Your task to perform on an android device: Clear all items from cart on ebay. Search for "logitech g pro" on ebay, select the first entry, add it to the cart, then select checkout. Image 0: 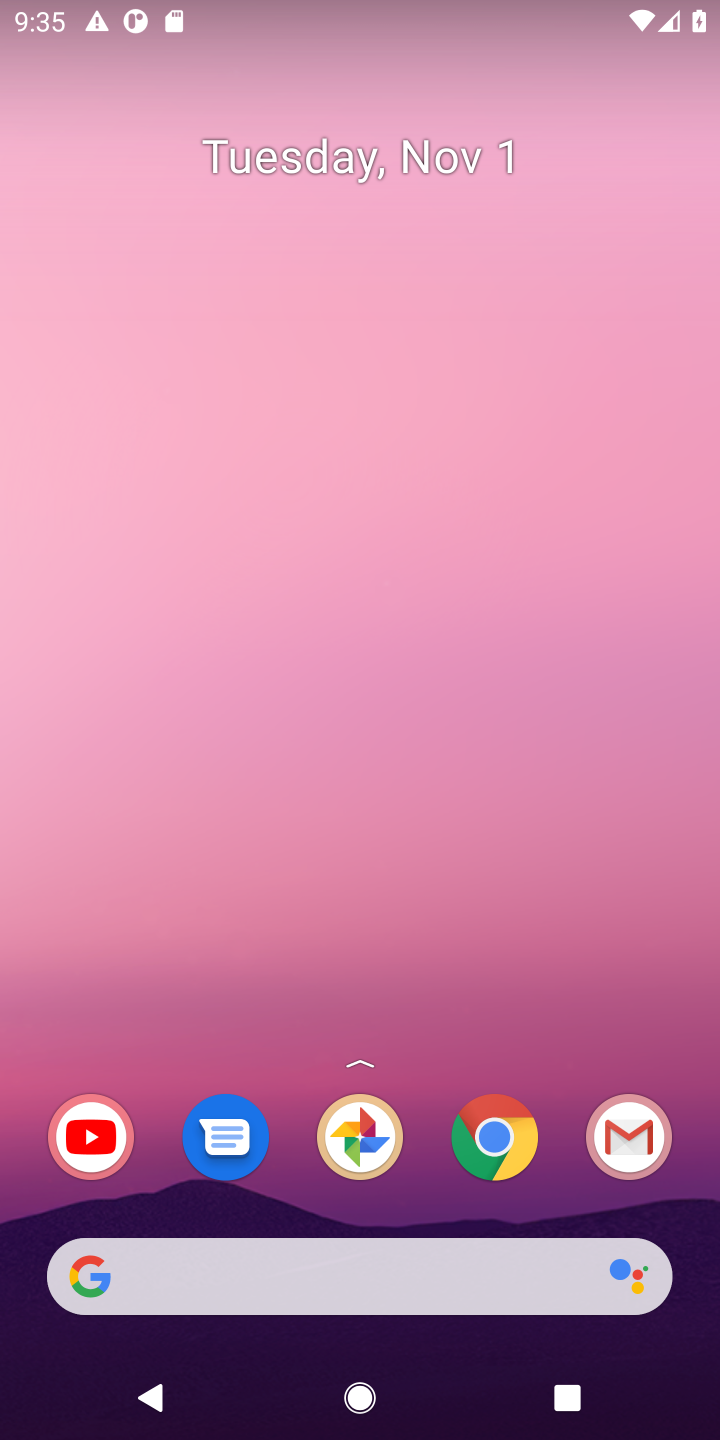
Step 0: click (353, 1242)
Your task to perform on an android device: Clear all items from cart on ebay. Search for "logitech g pro" on ebay, select the first entry, add it to the cart, then select checkout. Image 1: 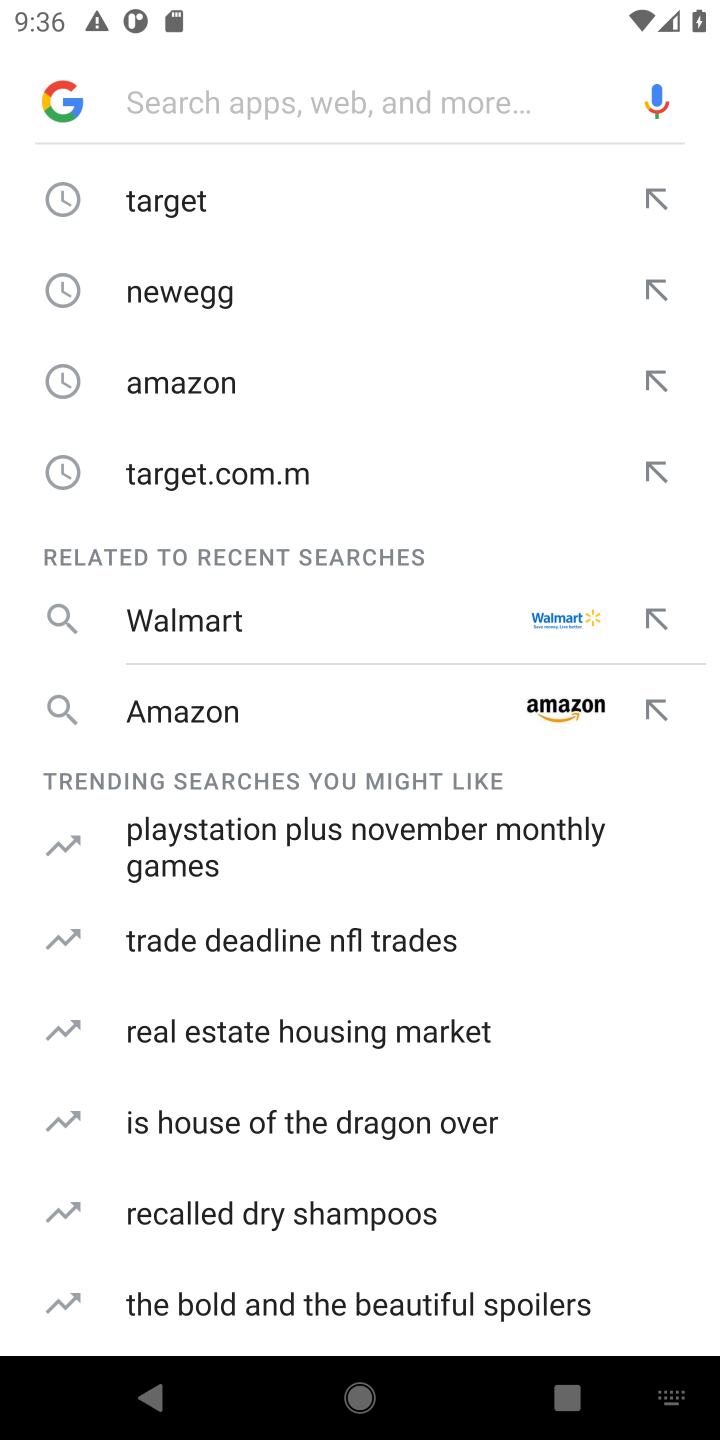
Step 1: type "ebay"
Your task to perform on an android device: Clear all items from cart on ebay. Search for "logitech g pro" on ebay, select the first entry, add it to the cart, then select checkout. Image 2: 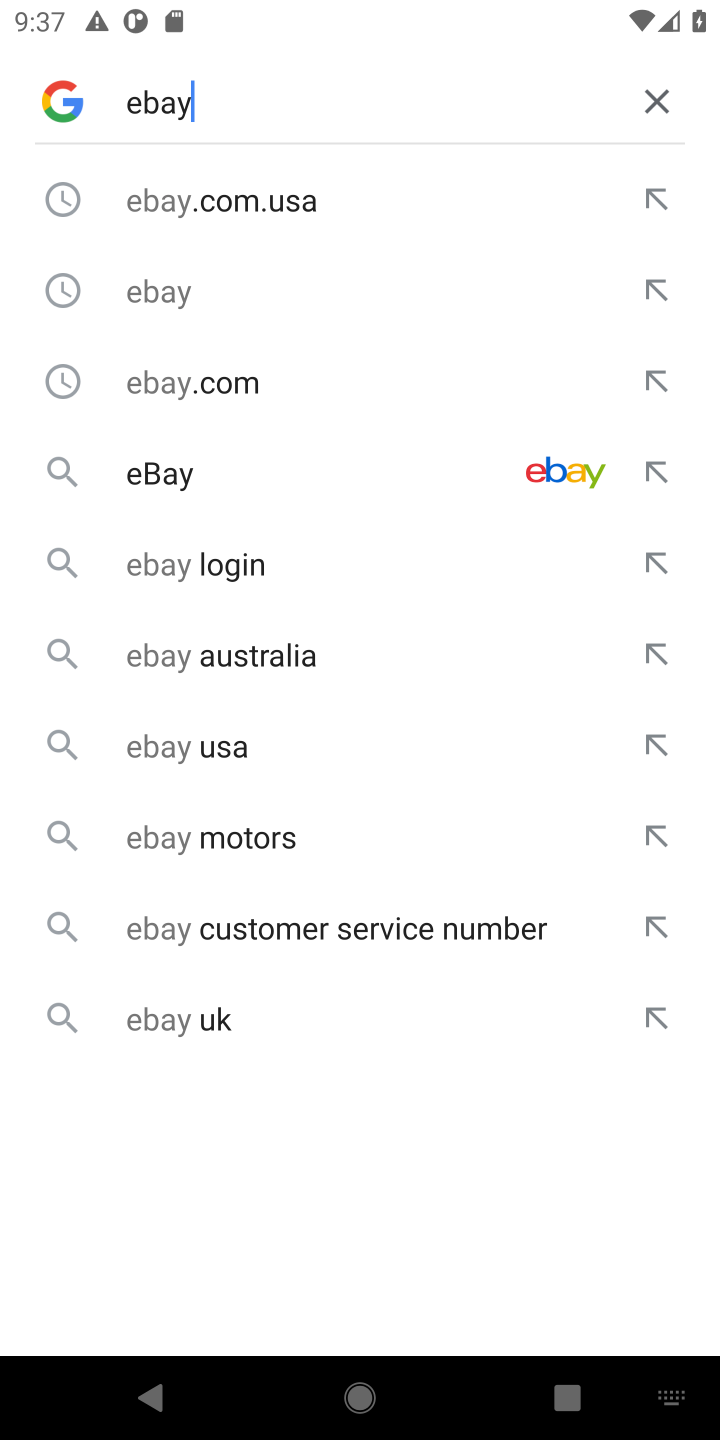
Step 2: click (317, 495)
Your task to perform on an android device: Clear all items from cart on ebay. Search for "logitech g pro" on ebay, select the first entry, add it to the cart, then select checkout. Image 3: 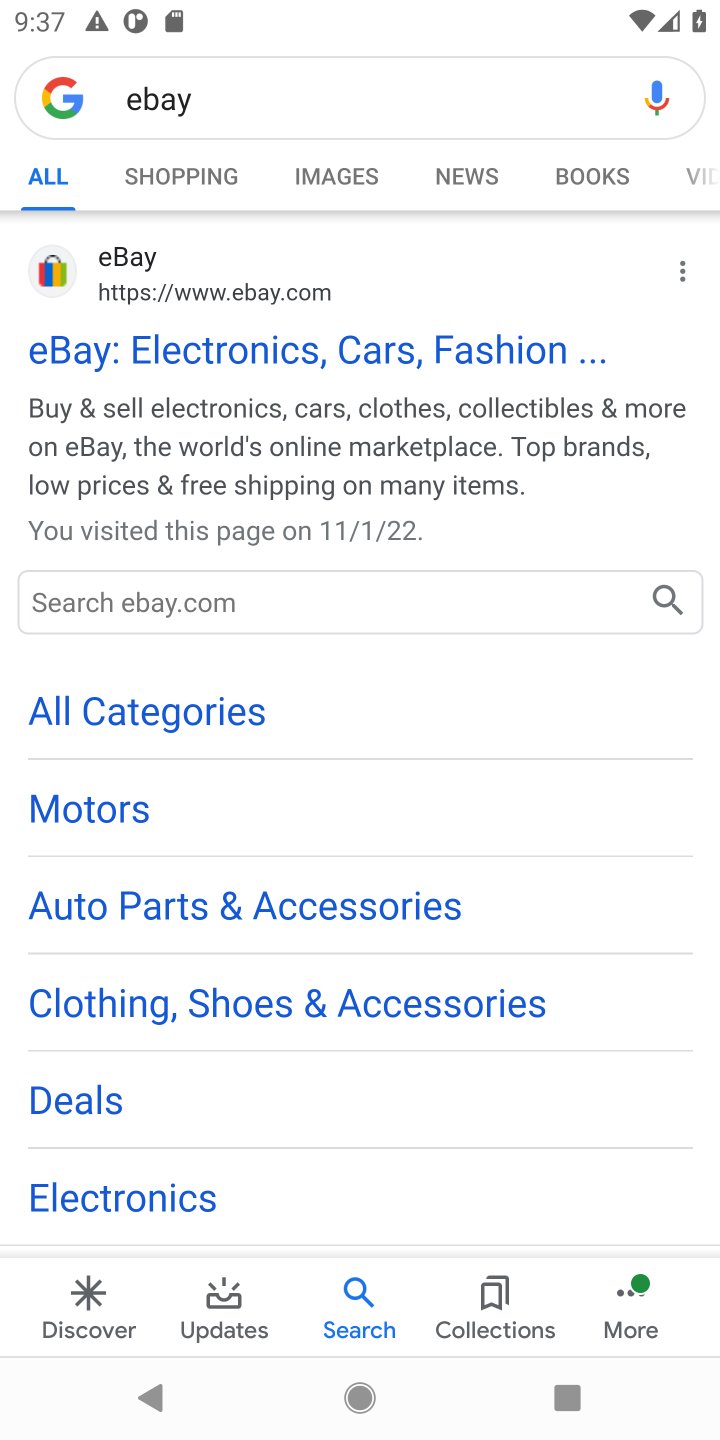
Step 3: click (114, 249)
Your task to perform on an android device: Clear all items from cart on ebay. Search for "logitech g pro" on ebay, select the first entry, add it to the cart, then select checkout. Image 4: 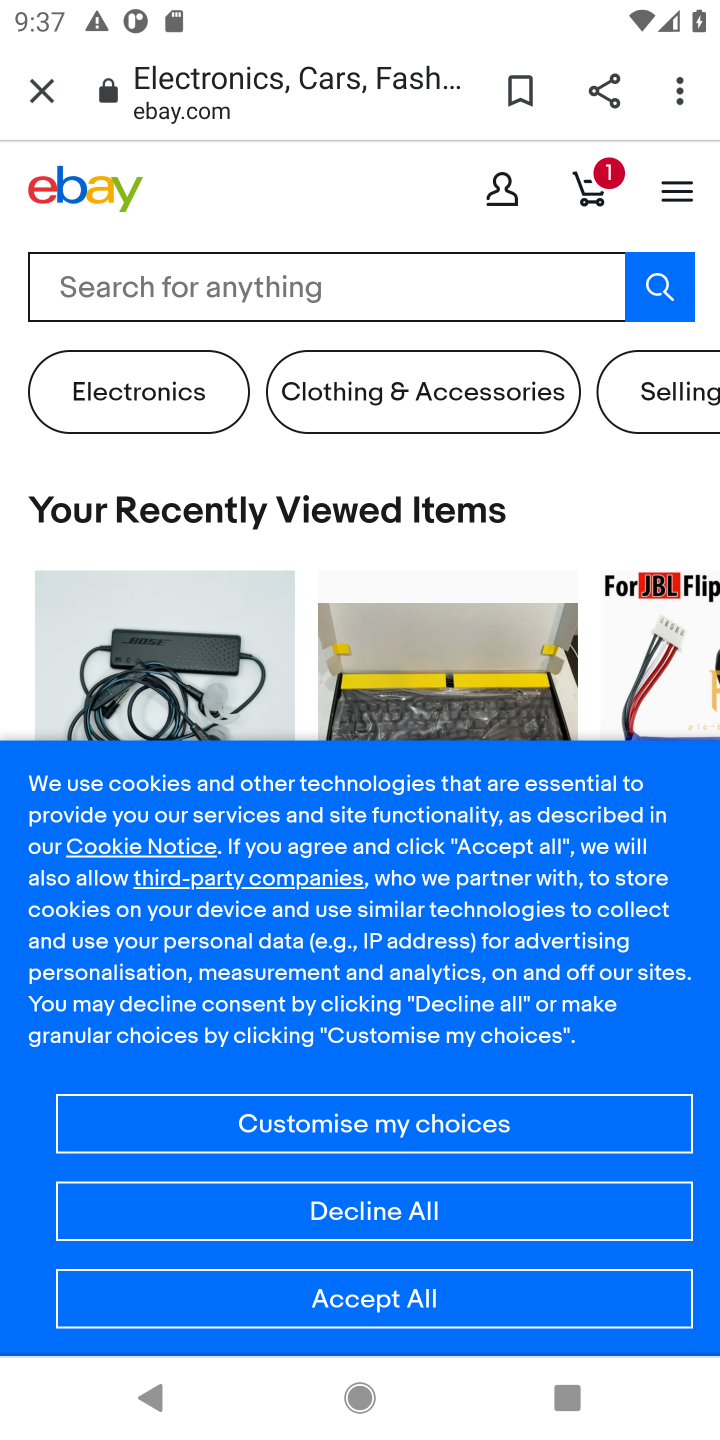
Step 4: click (227, 267)
Your task to perform on an android device: Clear all items from cart on ebay. Search for "logitech g pro" on ebay, select the first entry, add it to the cart, then select checkout. Image 5: 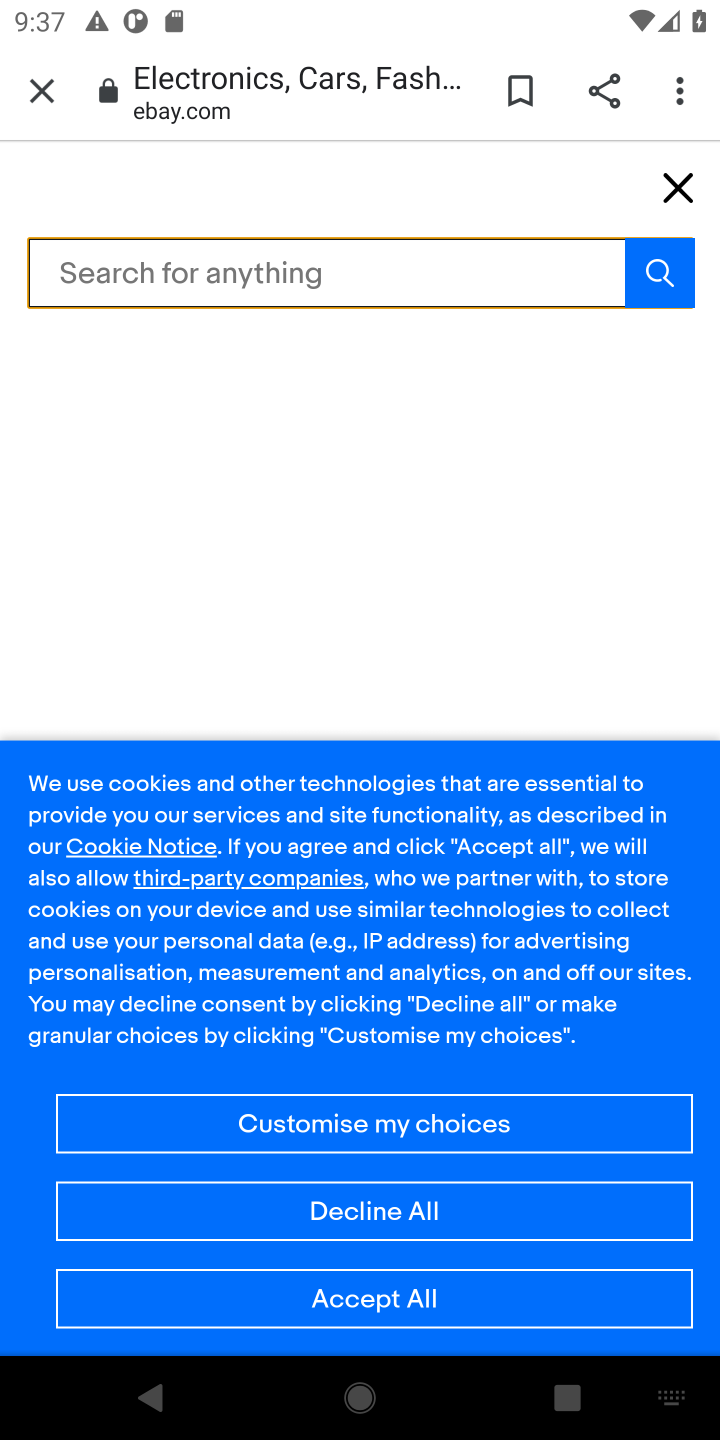
Step 5: type "logitech g pro"
Your task to perform on an android device: Clear all items from cart on ebay. Search for "logitech g pro" on ebay, select the first entry, add it to the cart, then select checkout. Image 6: 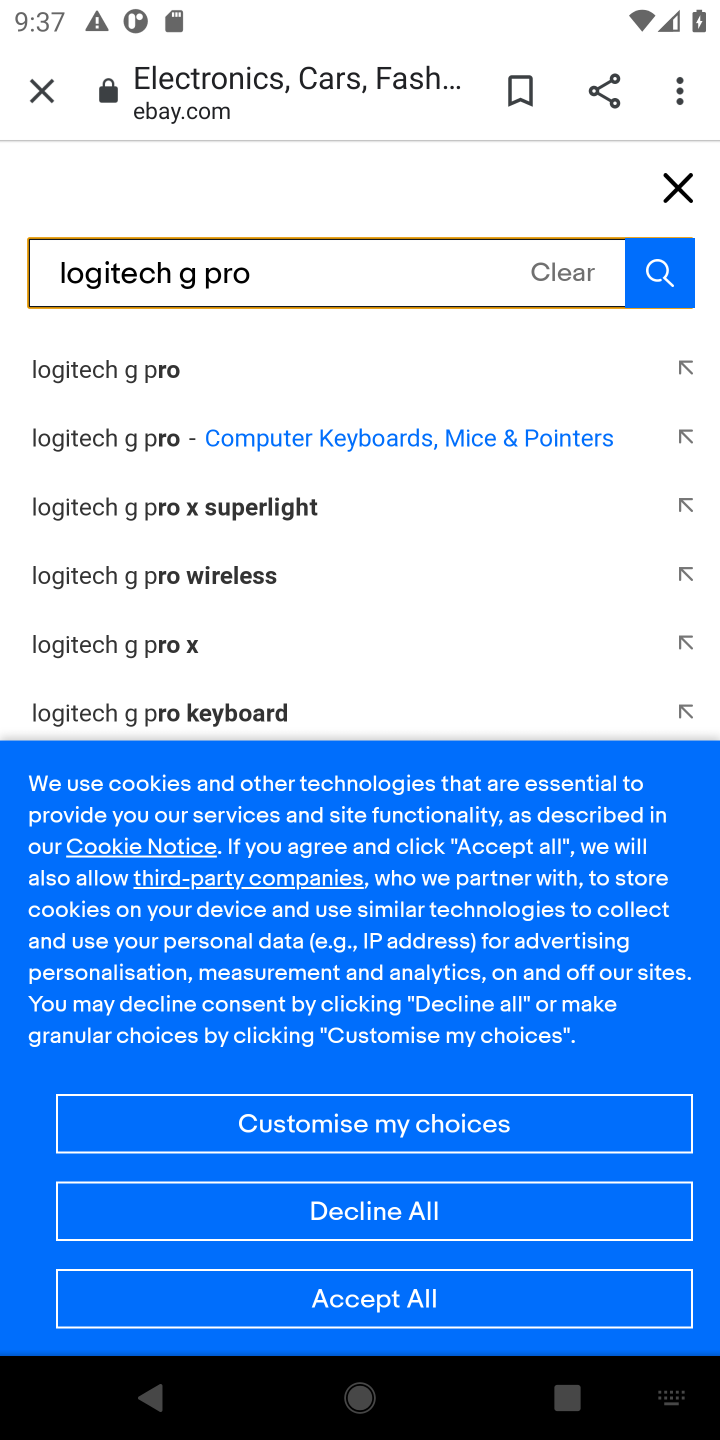
Step 6: click (118, 365)
Your task to perform on an android device: Clear all items from cart on ebay. Search for "logitech g pro" on ebay, select the first entry, add it to the cart, then select checkout. Image 7: 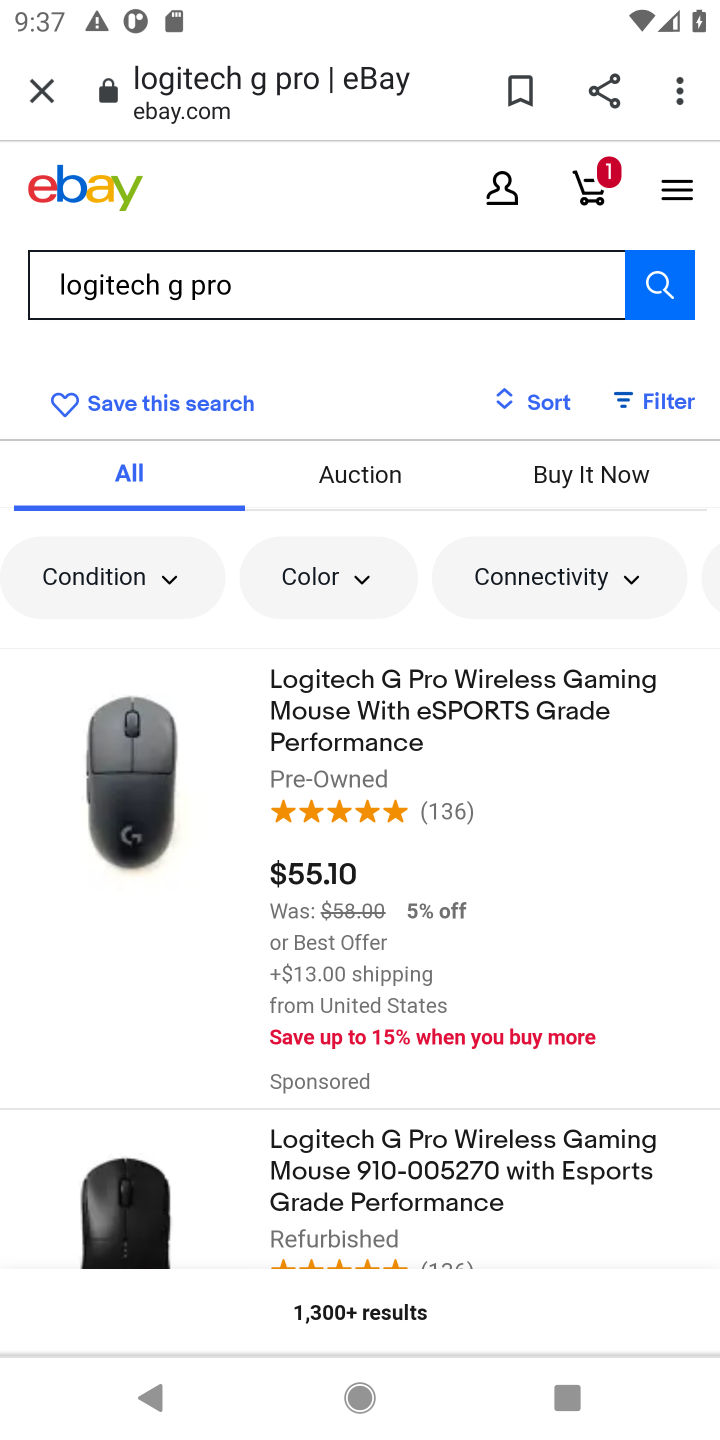
Step 7: click (330, 706)
Your task to perform on an android device: Clear all items from cart on ebay. Search for "logitech g pro" on ebay, select the first entry, add it to the cart, then select checkout. Image 8: 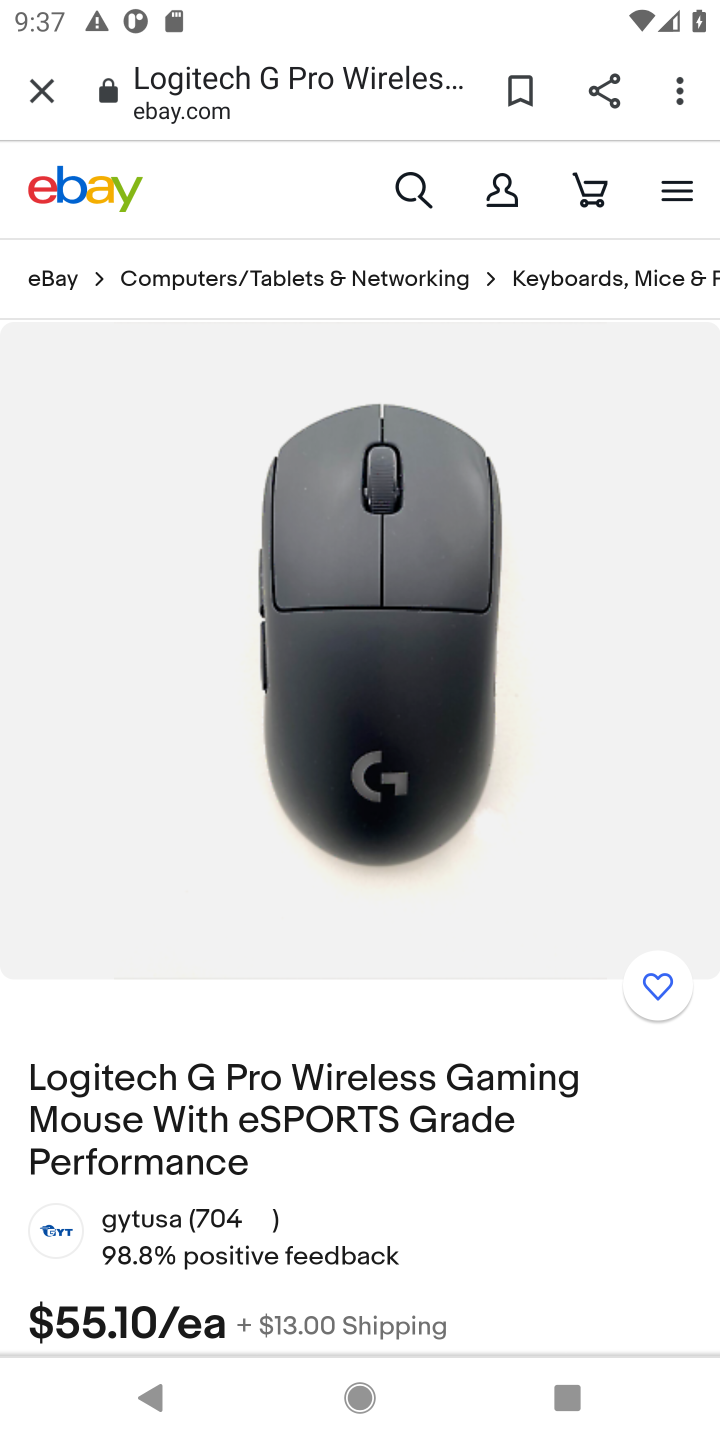
Step 8: drag from (474, 1132) to (494, 736)
Your task to perform on an android device: Clear all items from cart on ebay. Search for "logitech g pro" on ebay, select the first entry, add it to the cart, then select checkout. Image 9: 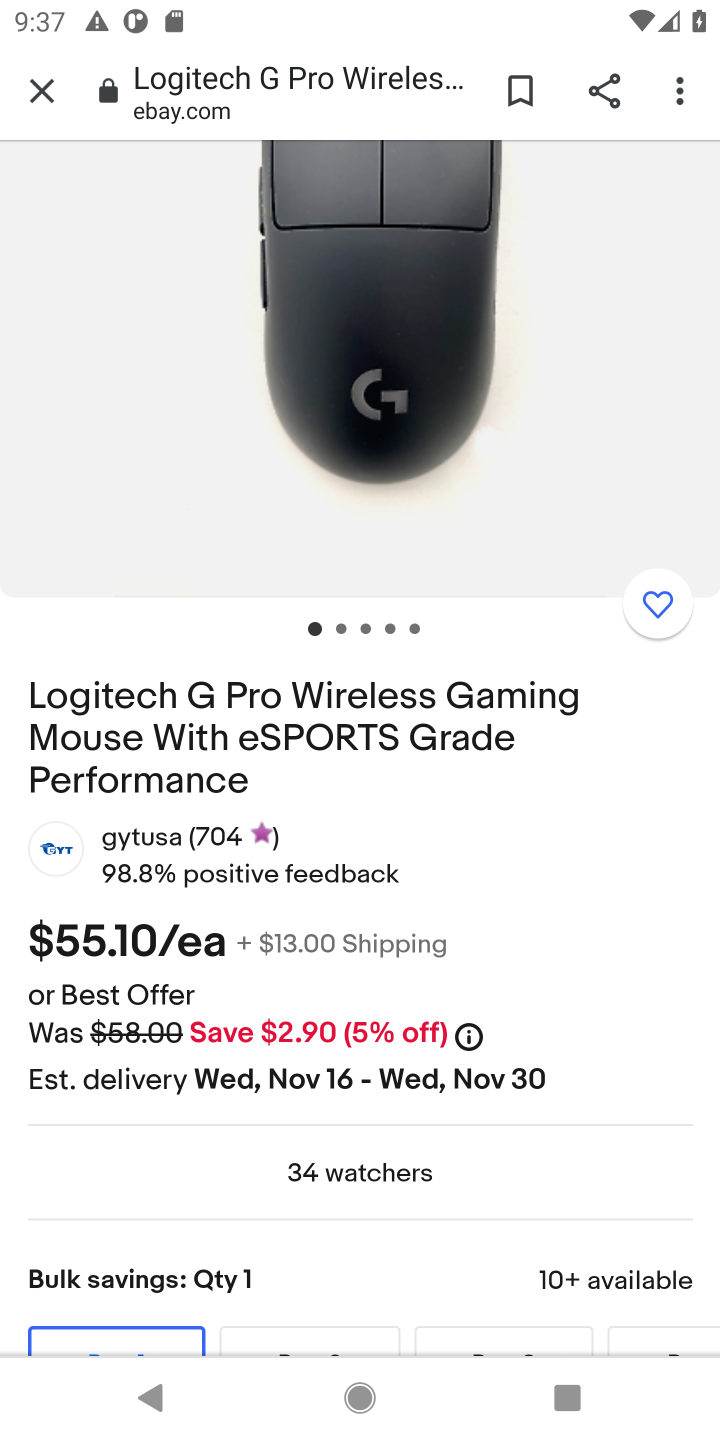
Step 9: drag from (446, 711) to (458, 568)
Your task to perform on an android device: Clear all items from cart on ebay. Search for "logitech g pro" on ebay, select the first entry, add it to the cart, then select checkout. Image 10: 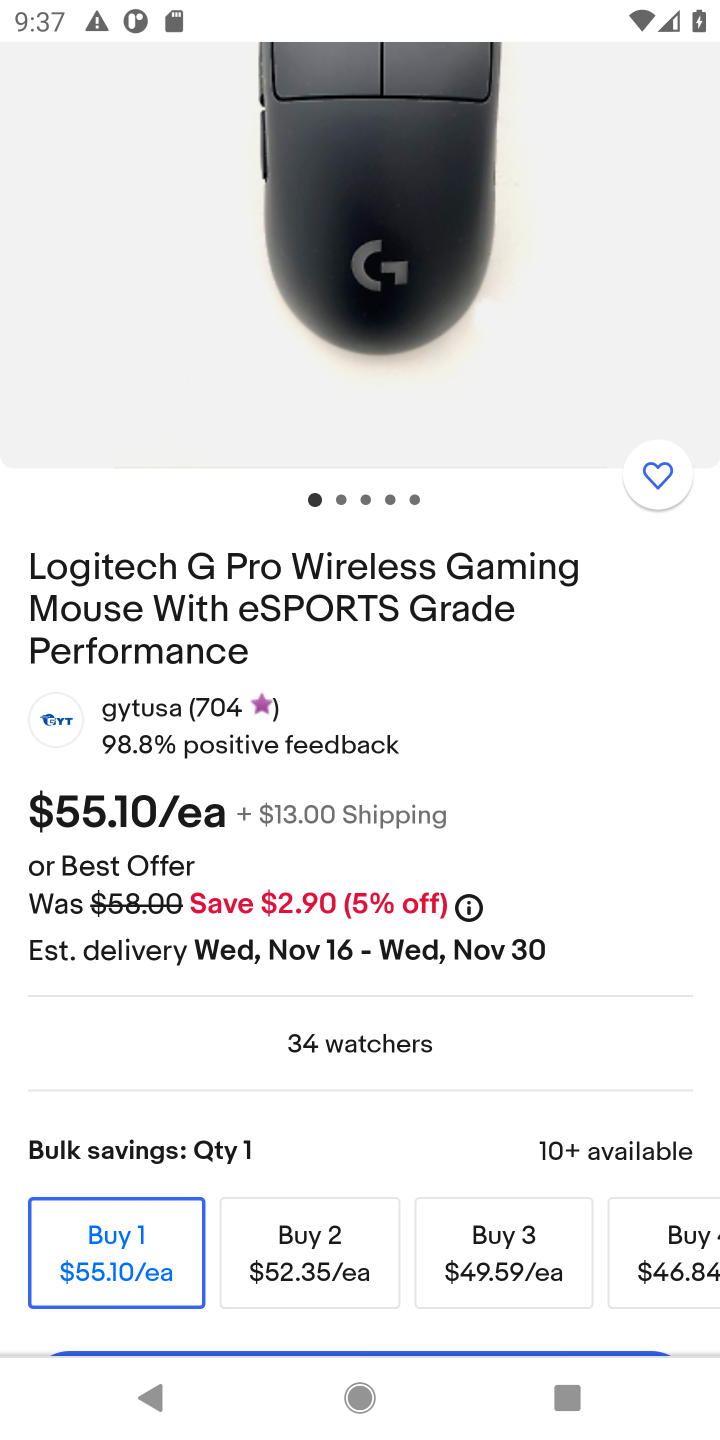
Step 10: drag from (388, 1215) to (459, 673)
Your task to perform on an android device: Clear all items from cart on ebay. Search for "logitech g pro" on ebay, select the first entry, add it to the cart, then select checkout. Image 11: 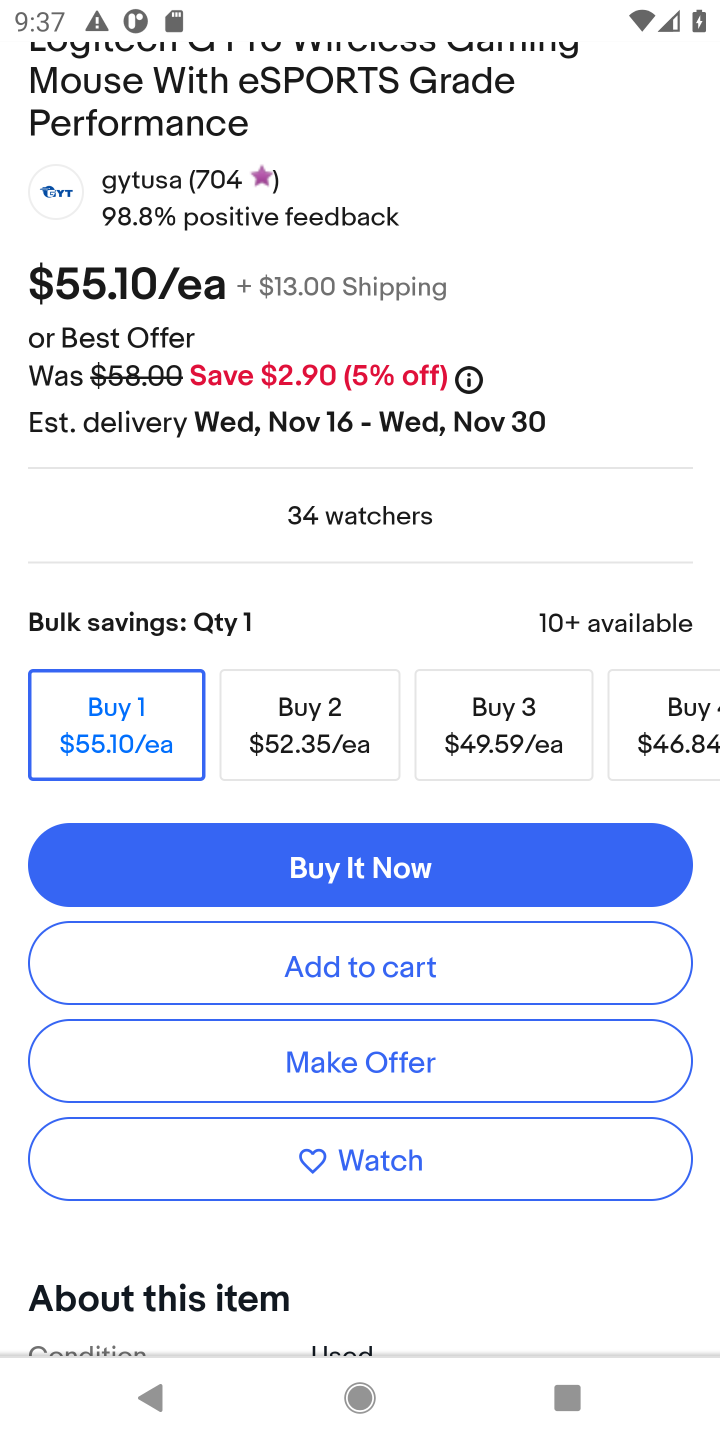
Step 11: click (334, 956)
Your task to perform on an android device: Clear all items from cart on ebay. Search for "logitech g pro" on ebay, select the first entry, add it to the cart, then select checkout. Image 12: 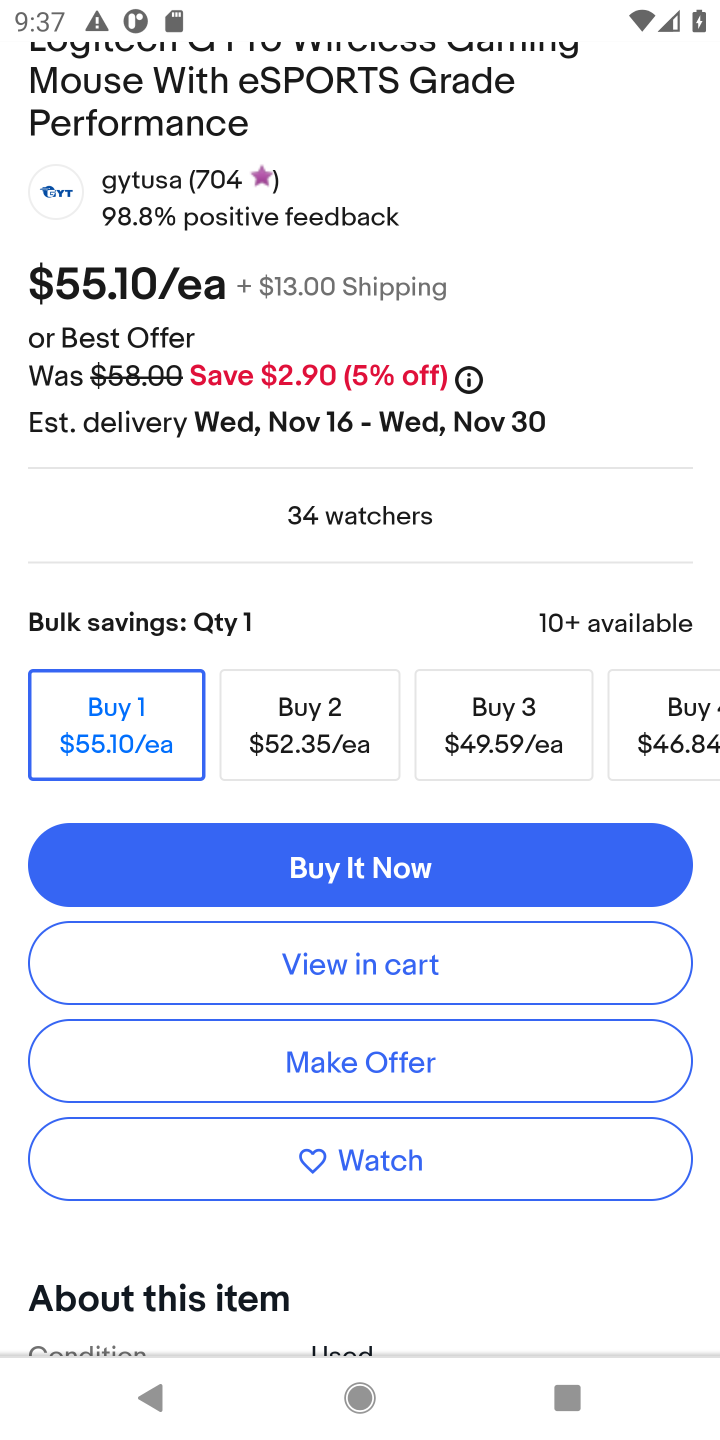
Step 12: drag from (584, 513) to (612, 1110)
Your task to perform on an android device: Clear all items from cart on ebay. Search for "logitech g pro" on ebay, select the first entry, add it to the cart, then select checkout. Image 13: 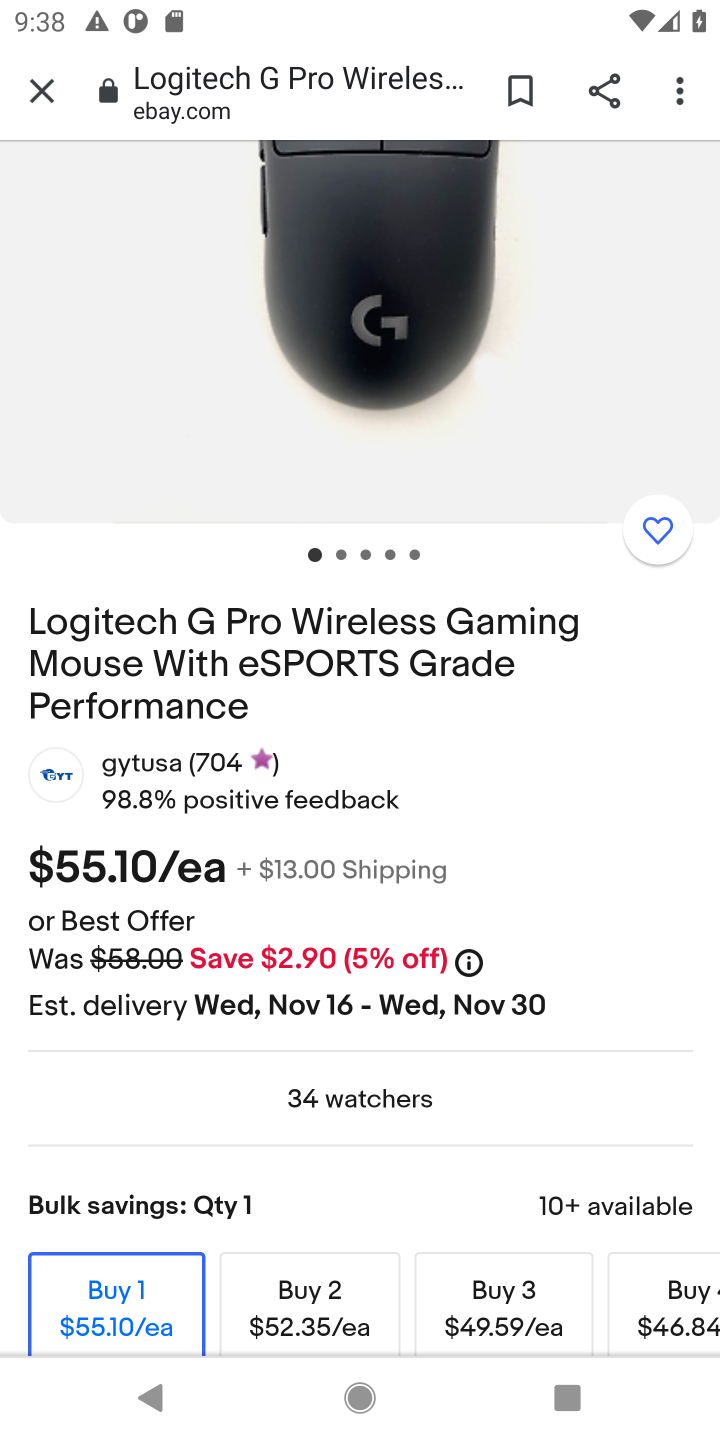
Step 13: drag from (658, 679) to (575, 1323)
Your task to perform on an android device: Clear all items from cart on ebay. Search for "logitech g pro" on ebay, select the first entry, add it to the cart, then select checkout. Image 14: 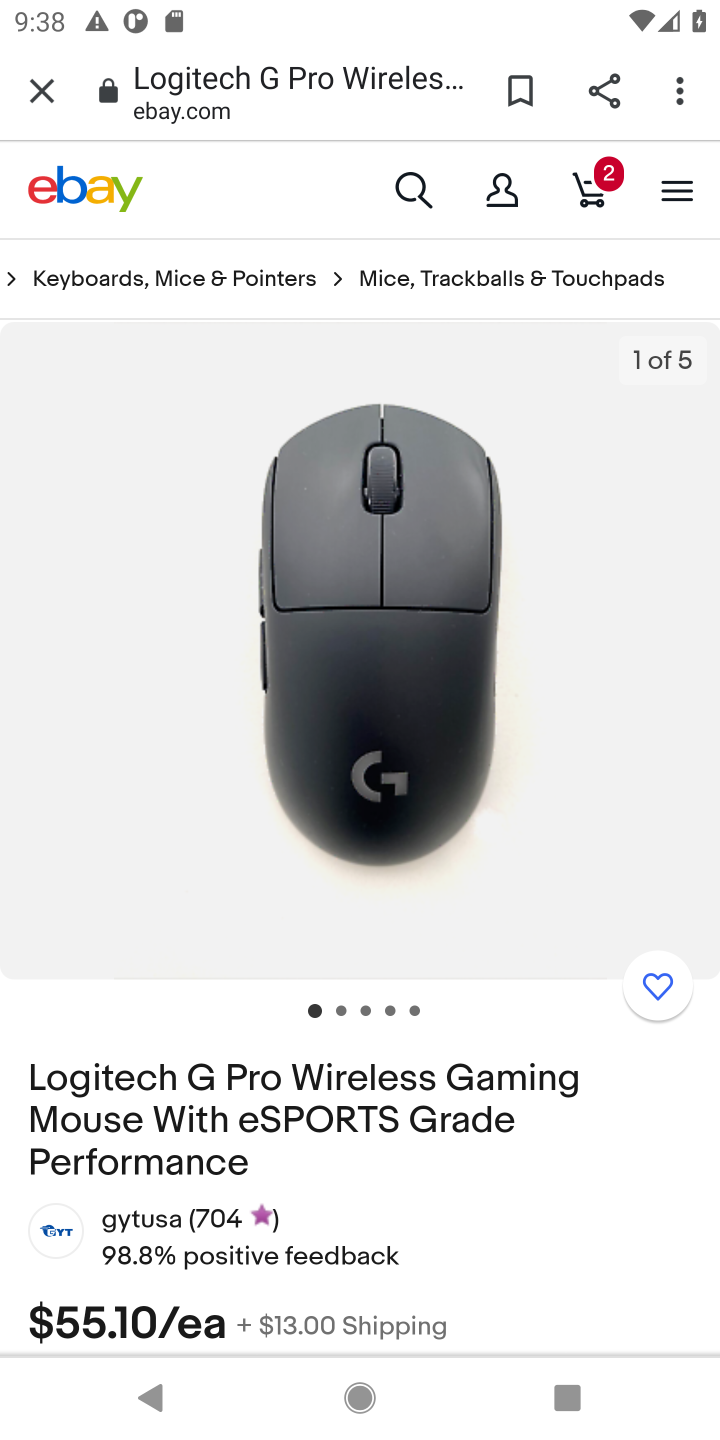
Step 14: click (607, 182)
Your task to perform on an android device: Clear all items from cart on ebay. Search for "logitech g pro" on ebay, select the first entry, add it to the cart, then select checkout. Image 15: 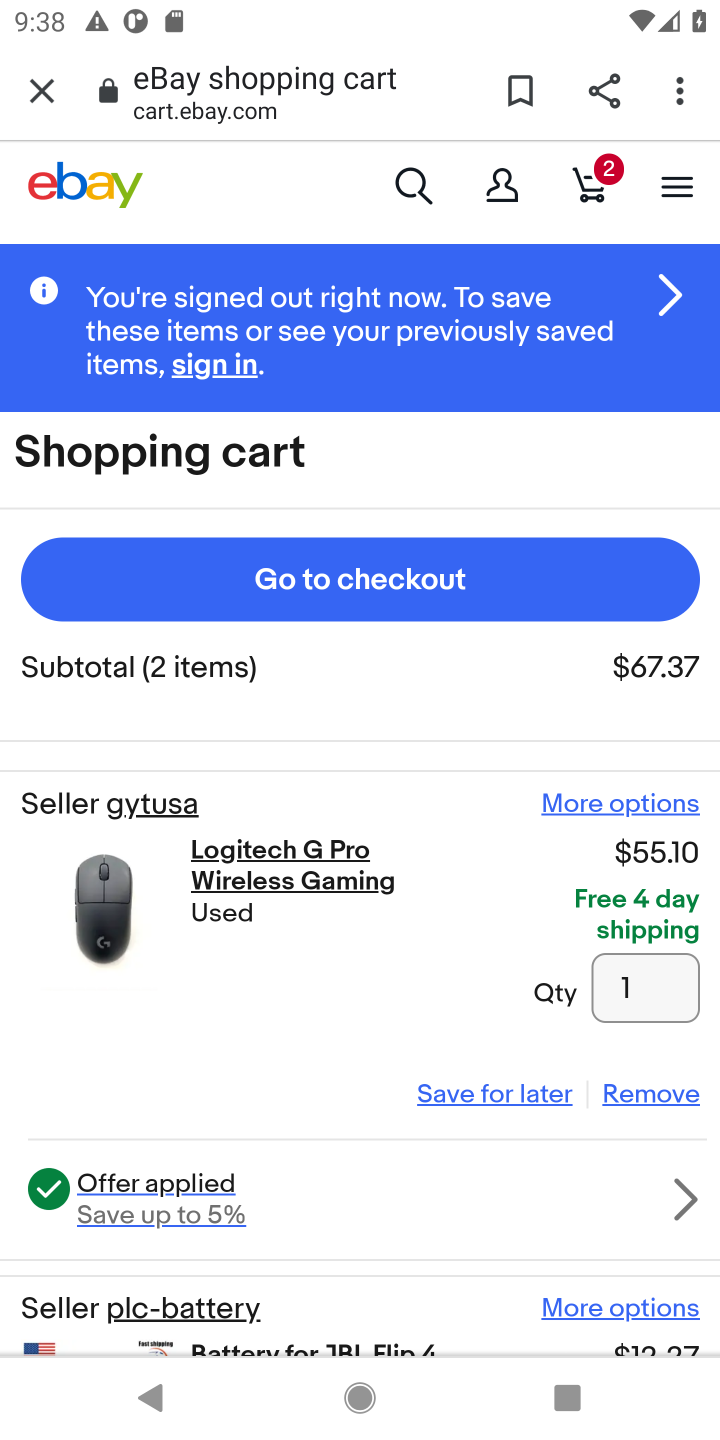
Step 15: click (325, 563)
Your task to perform on an android device: Clear all items from cart on ebay. Search for "logitech g pro" on ebay, select the first entry, add it to the cart, then select checkout. Image 16: 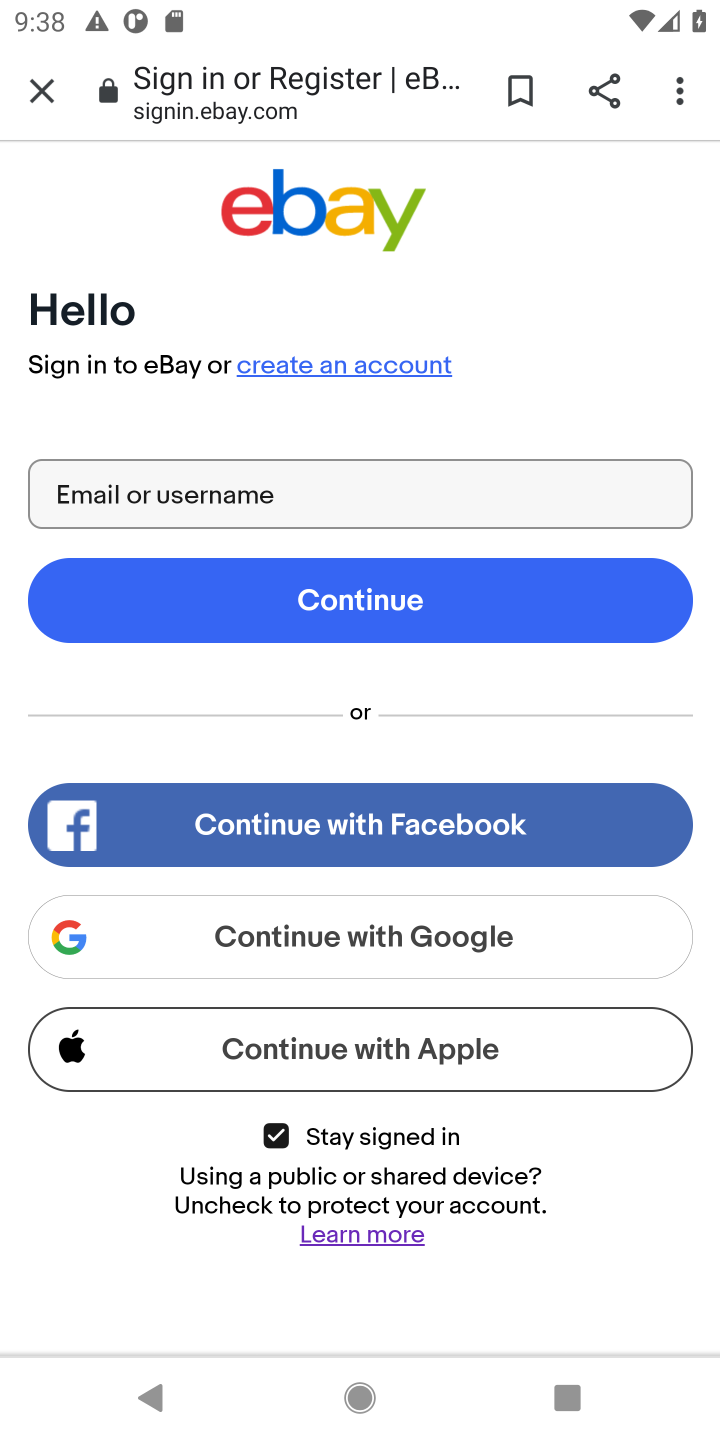
Step 16: task complete